Your task to perform on an android device: Go to wifi settings Image 0: 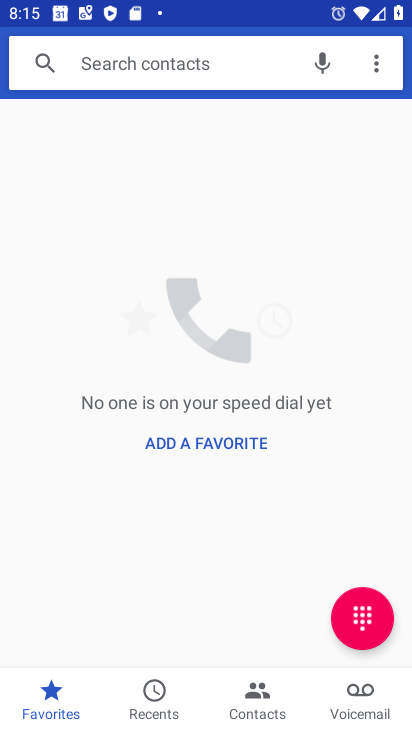
Step 0: press back button
Your task to perform on an android device: Go to wifi settings Image 1: 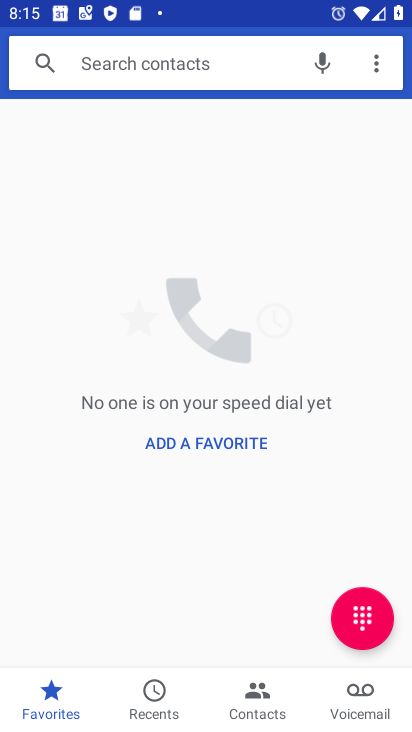
Step 1: press home button
Your task to perform on an android device: Go to wifi settings Image 2: 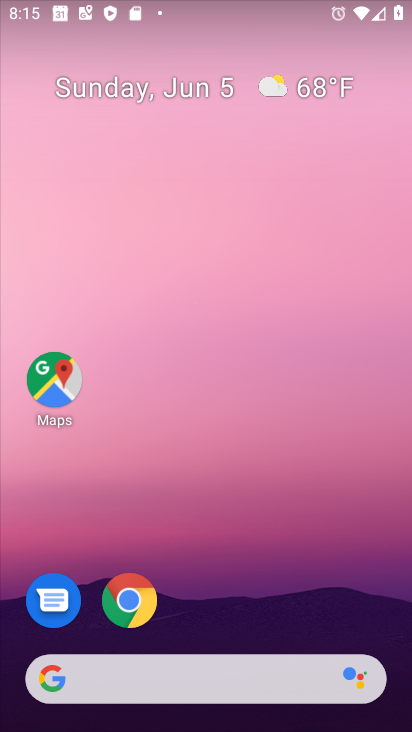
Step 2: drag from (392, 670) to (252, 20)
Your task to perform on an android device: Go to wifi settings Image 3: 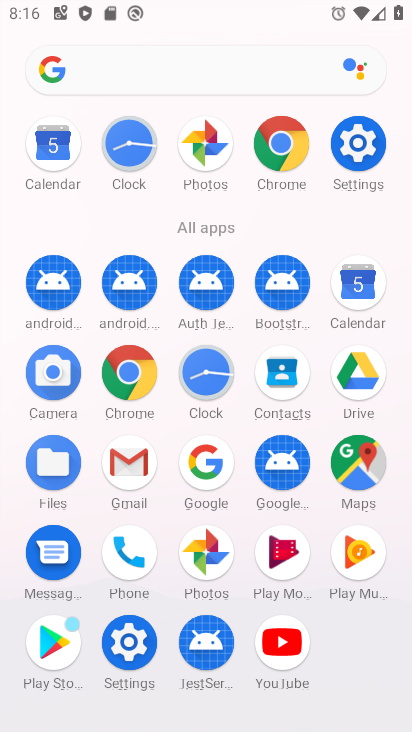
Step 3: click (348, 148)
Your task to perform on an android device: Go to wifi settings Image 4: 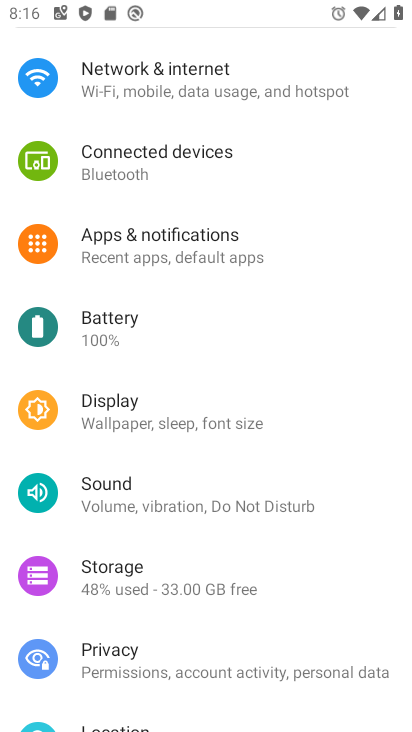
Step 4: click (191, 92)
Your task to perform on an android device: Go to wifi settings Image 5: 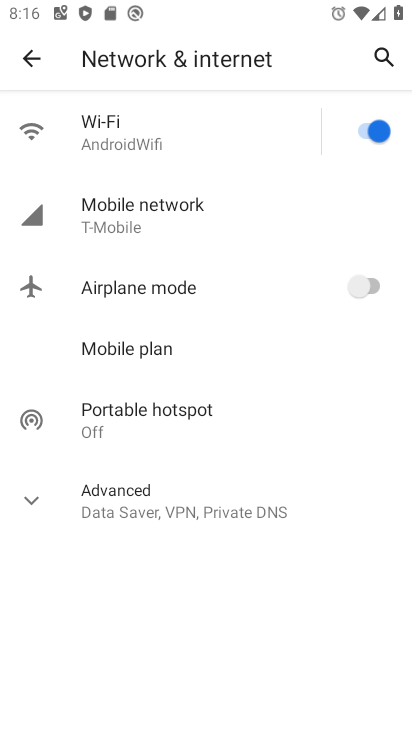
Step 5: click (119, 126)
Your task to perform on an android device: Go to wifi settings Image 6: 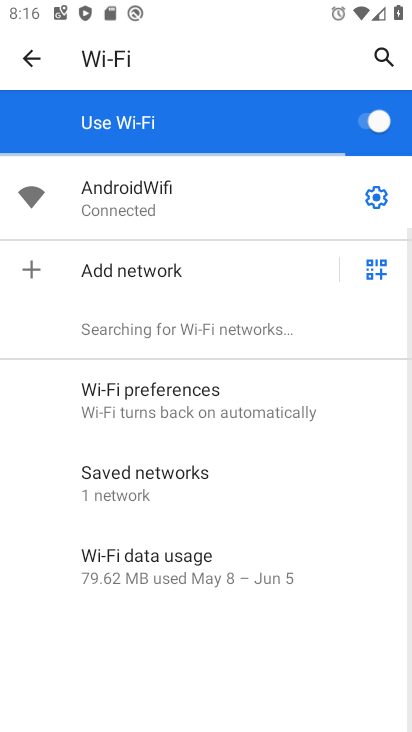
Step 6: task complete